Your task to perform on an android device: Show me popular videos on Youtube Image 0: 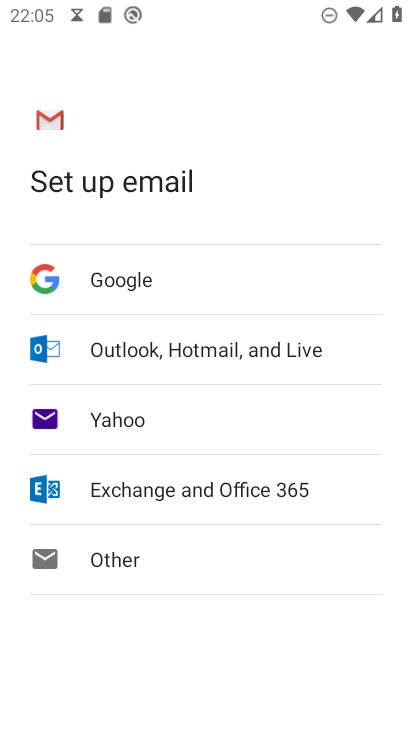
Step 0: press home button
Your task to perform on an android device: Show me popular videos on Youtube Image 1: 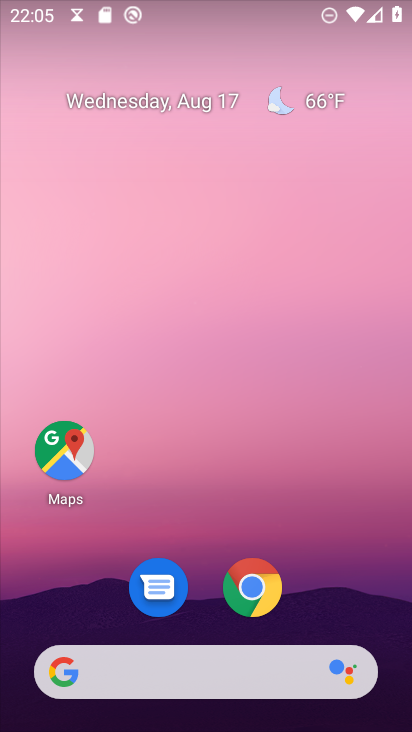
Step 1: drag from (16, 689) to (404, 162)
Your task to perform on an android device: Show me popular videos on Youtube Image 2: 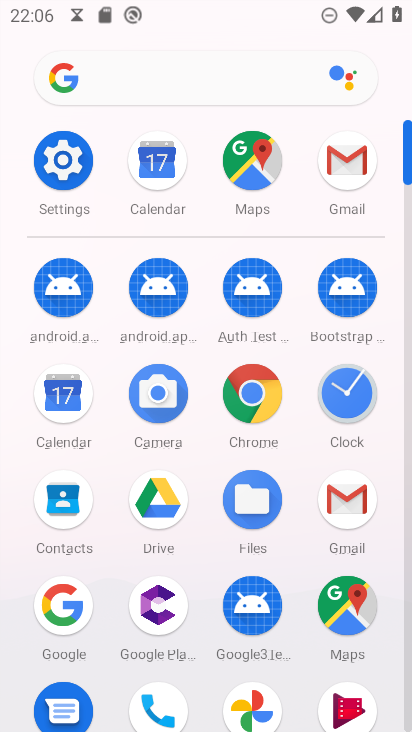
Step 2: drag from (379, 682) to (226, 419)
Your task to perform on an android device: Show me popular videos on Youtube Image 3: 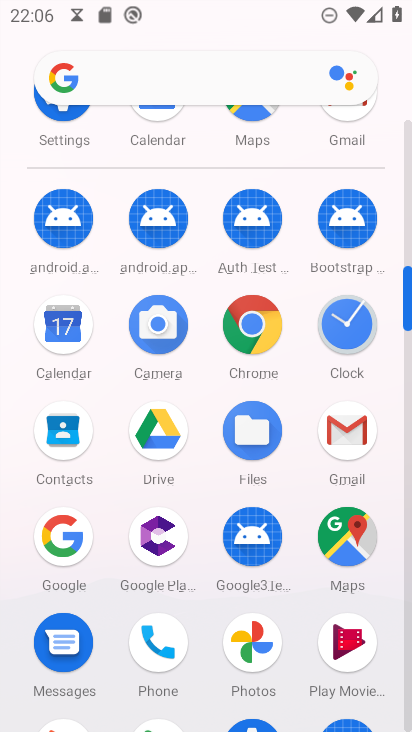
Step 3: drag from (393, 718) to (296, 313)
Your task to perform on an android device: Show me popular videos on Youtube Image 4: 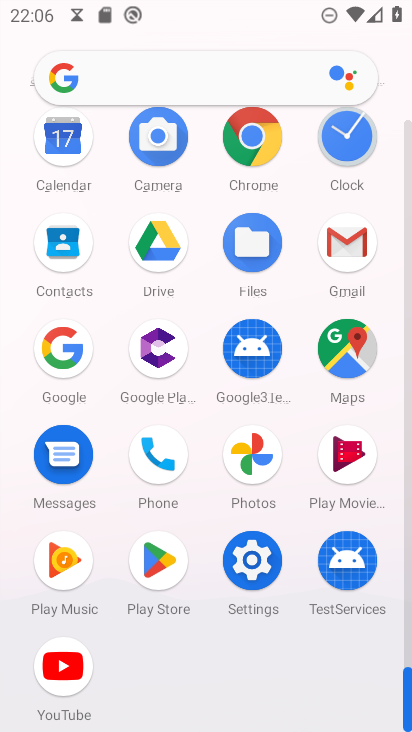
Step 4: click (57, 655)
Your task to perform on an android device: Show me popular videos on Youtube Image 5: 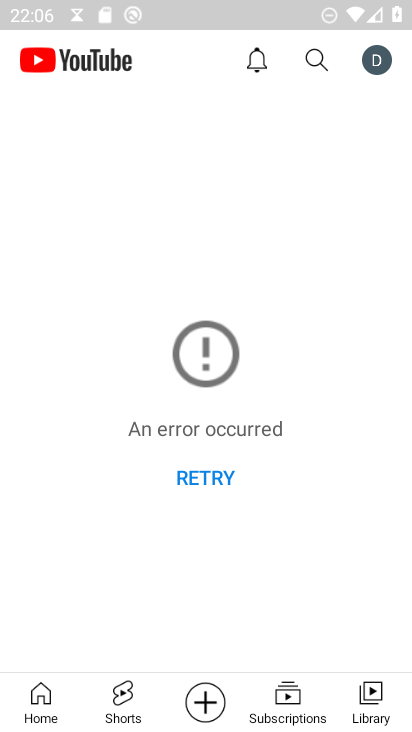
Step 5: click (321, 62)
Your task to perform on an android device: Show me popular videos on Youtube Image 6: 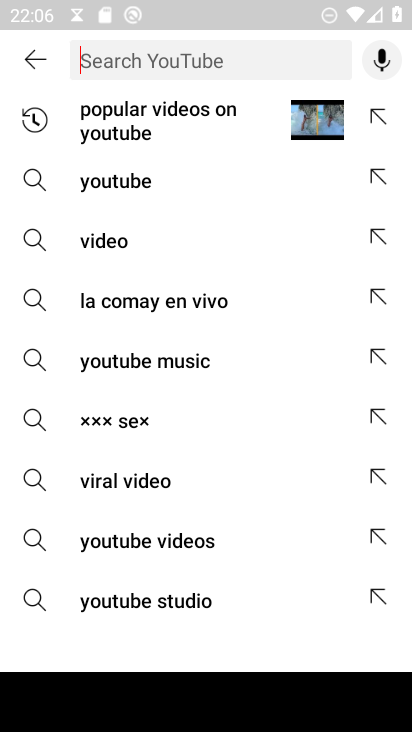
Step 6: click (147, 112)
Your task to perform on an android device: Show me popular videos on Youtube Image 7: 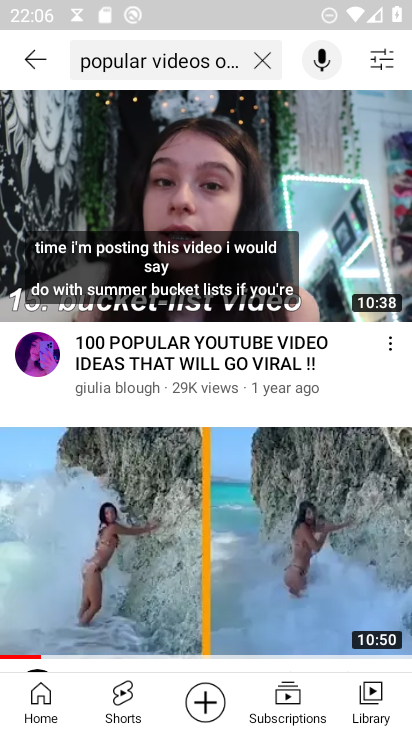
Step 7: task complete